Your task to perform on an android device: Open internet settings Image 0: 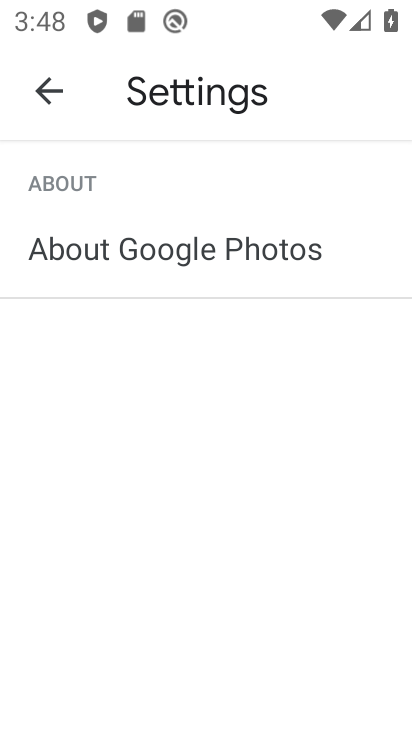
Step 0: press home button
Your task to perform on an android device: Open internet settings Image 1: 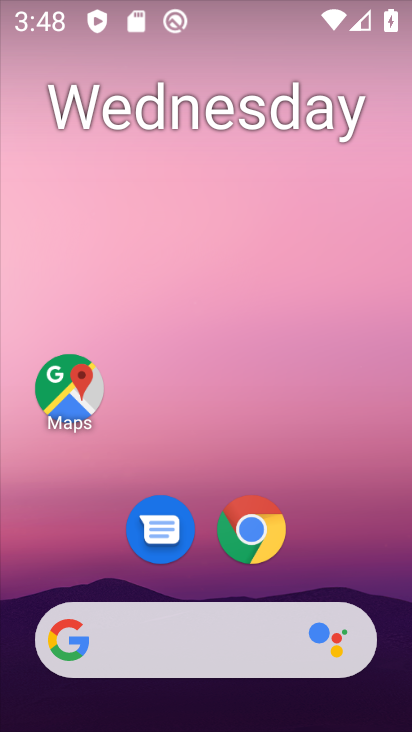
Step 1: drag from (328, 393) to (329, 89)
Your task to perform on an android device: Open internet settings Image 2: 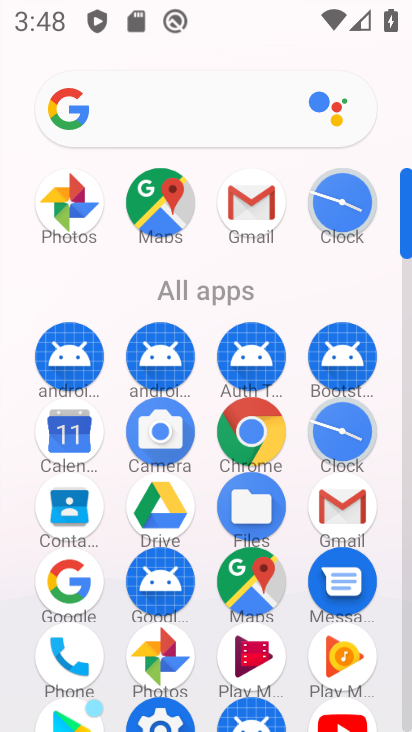
Step 2: drag from (302, 639) to (341, 341)
Your task to perform on an android device: Open internet settings Image 3: 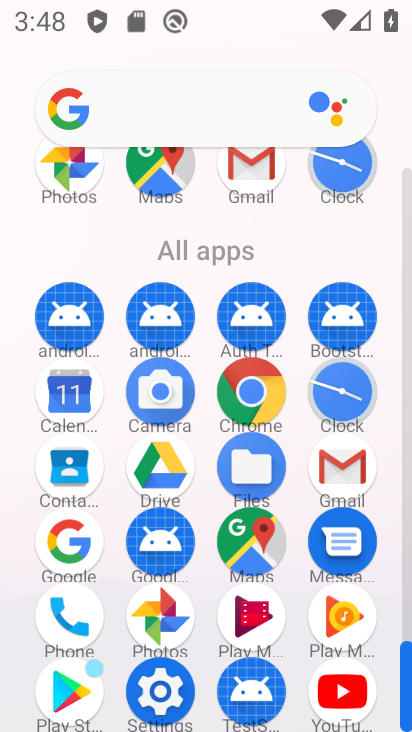
Step 3: click (169, 677)
Your task to perform on an android device: Open internet settings Image 4: 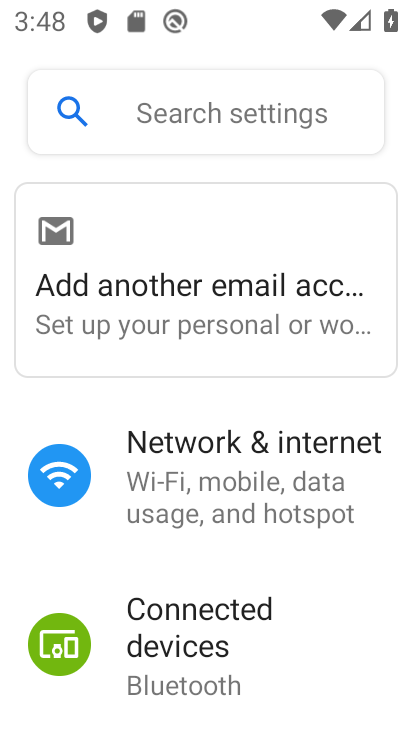
Step 4: click (253, 495)
Your task to perform on an android device: Open internet settings Image 5: 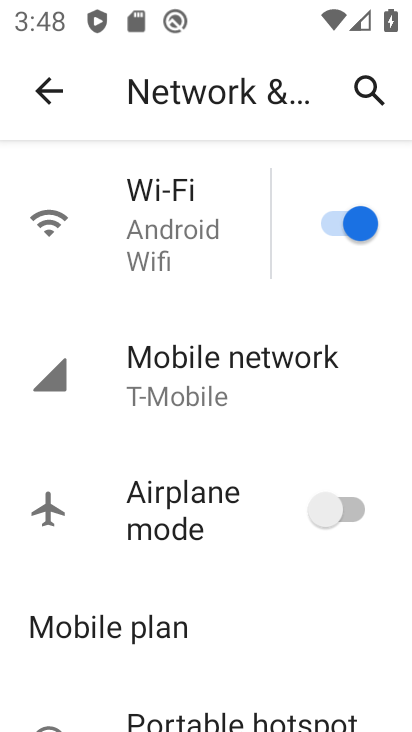
Step 5: task complete